Your task to perform on an android device: Open calendar and show me the fourth week of next month Image 0: 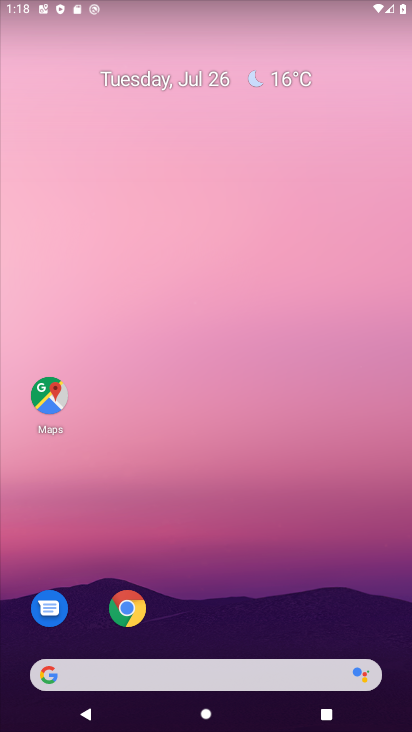
Step 0: drag from (309, 653) to (205, 191)
Your task to perform on an android device: Open calendar and show me the fourth week of next month Image 1: 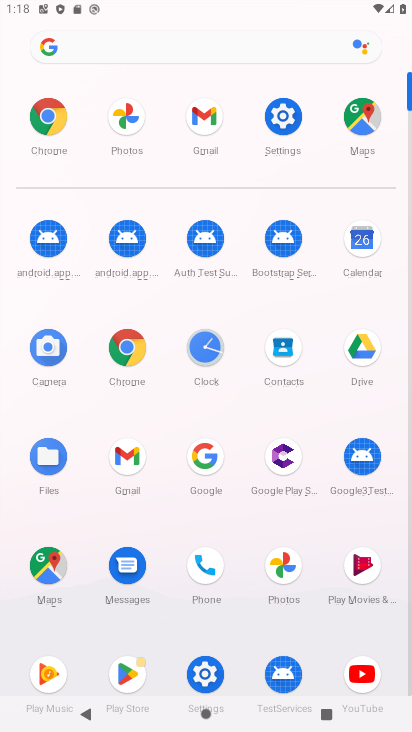
Step 1: click (354, 253)
Your task to perform on an android device: Open calendar and show me the fourth week of next month Image 2: 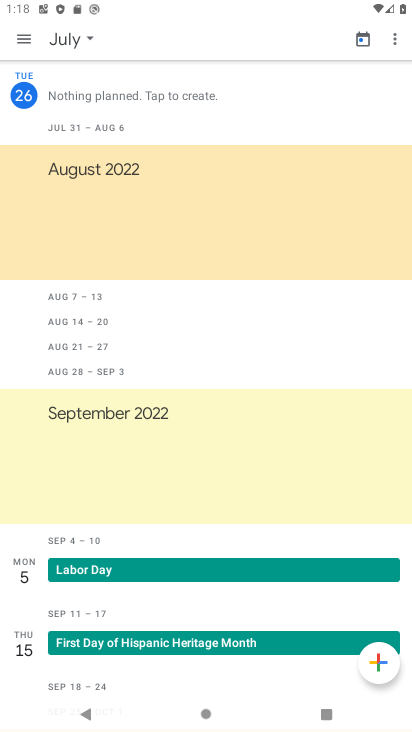
Step 2: task complete